Your task to perform on an android device: Go to notification settings Image 0: 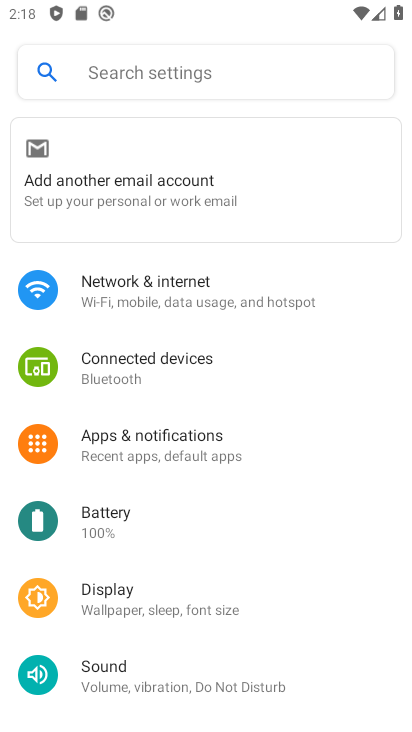
Step 0: click (187, 464)
Your task to perform on an android device: Go to notification settings Image 1: 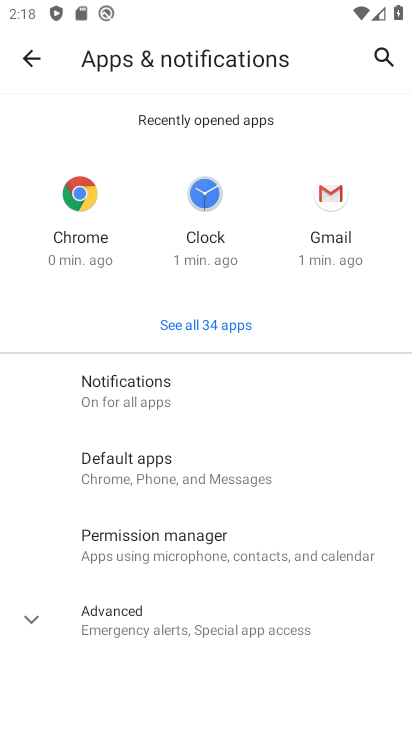
Step 1: click (157, 382)
Your task to perform on an android device: Go to notification settings Image 2: 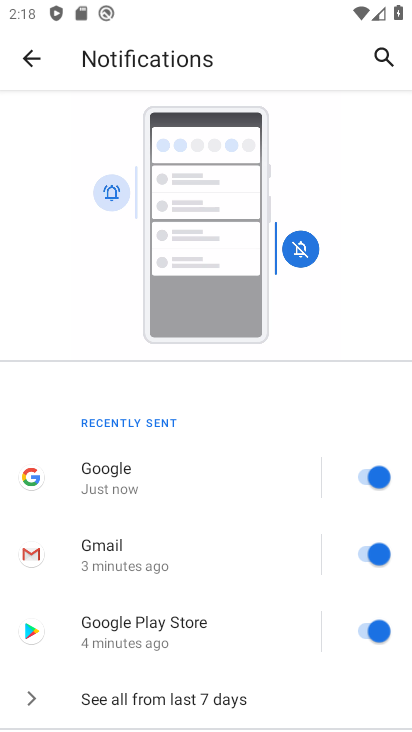
Step 2: task complete